Your task to perform on an android device: change the clock style Image 0: 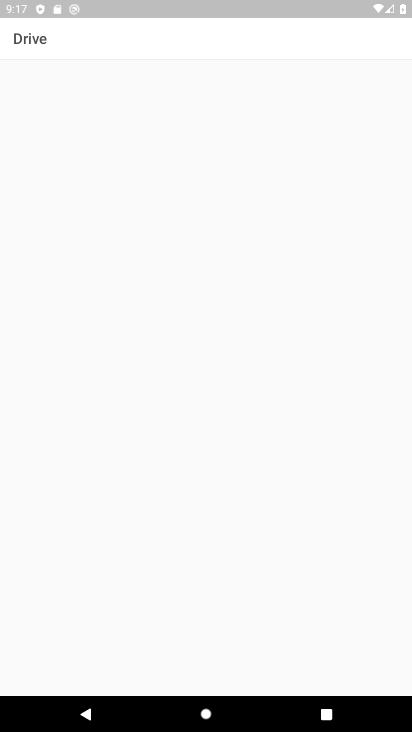
Step 0: press home button
Your task to perform on an android device: change the clock style Image 1: 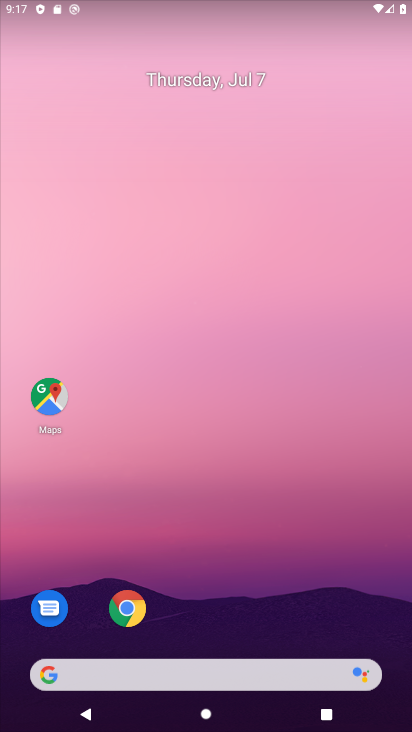
Step 1: drag from (203, 664) to (308, 19)
Your task to perform on an android device: change the clock style Image 2: 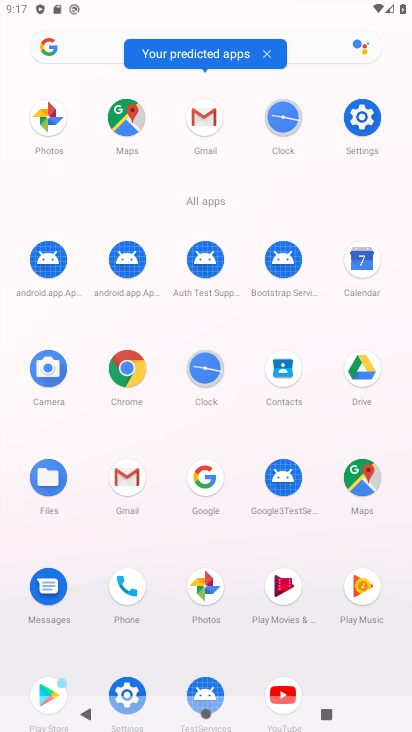
Step 2: click (199, 380)
Your task to perform on an android device: change the clock style Image 3: 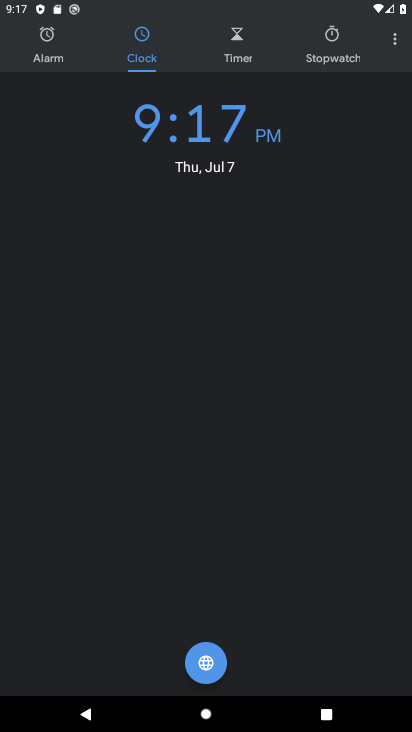
Step 3: click (389, 35)
Your task to perform on an android device: change the clock style Image 4: 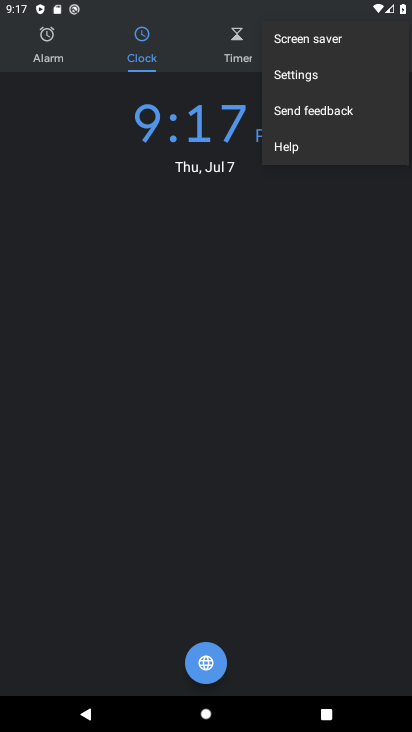
Step 4: click (293, 81)
Your task to perform on an android device: change the clock style Image 5: 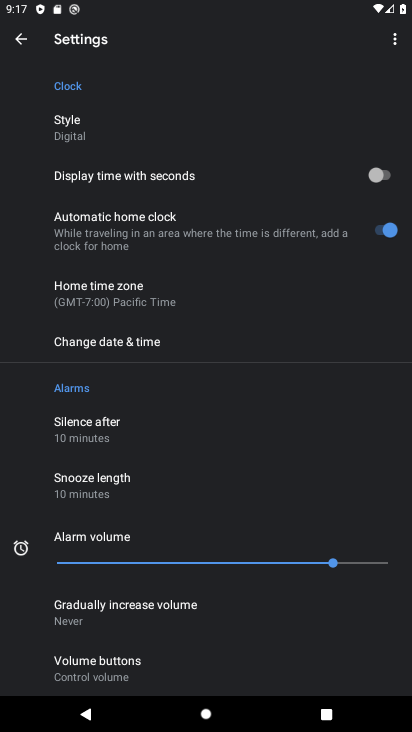
Step 5: click (62, 131)
Your task to perform on an android device: change the clock style Image 6: 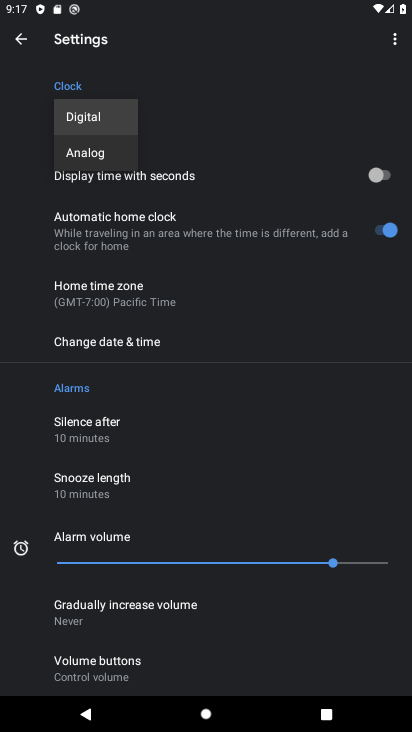
Step 6: click (95, 139)
Your task to perform on an android device: change the clock style Image 7: 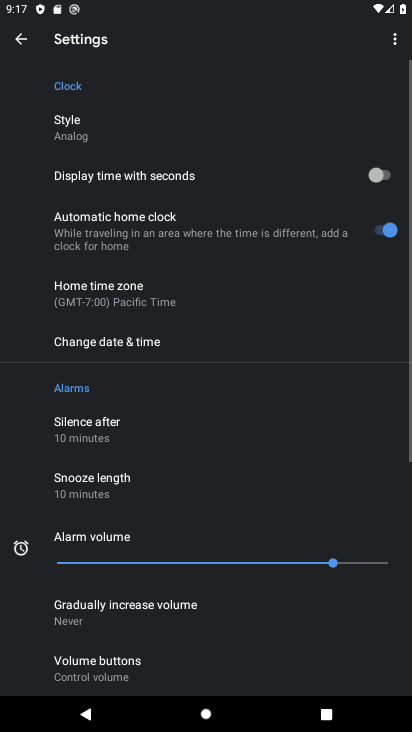
Step 7: task complete